Your task to perform on an android device: Go to privacy settings Image 0: 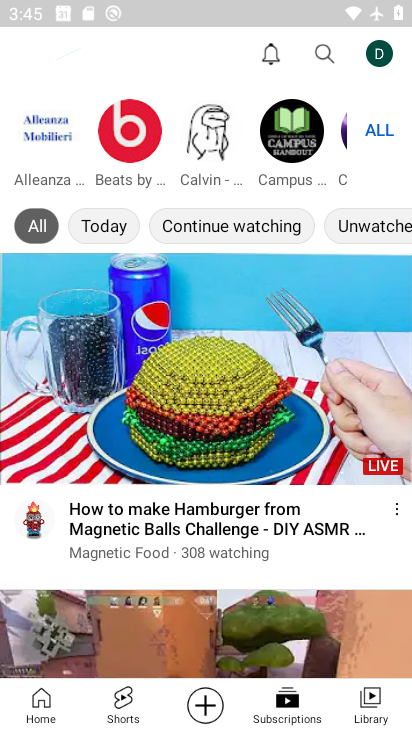
Step 0: press home button
Your task to perform on an android device: Go to privacy settings Image 1: 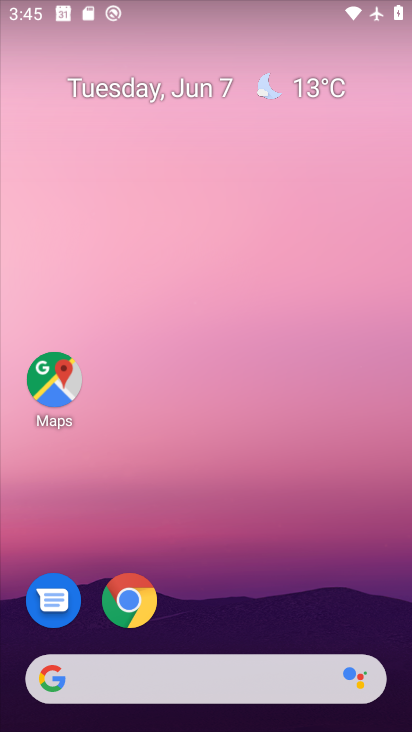
Step 1: drag from (291, 572) to (231, 196)
Your task to perform on an android device: Go to privacy settings Image 2: 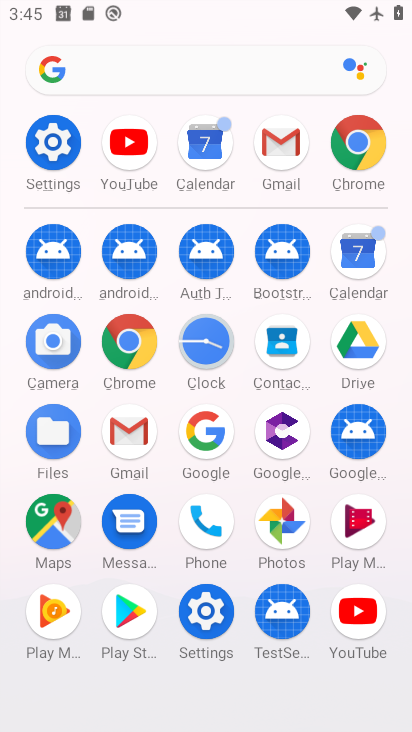
Step 2: click (52, 143)
Your task to perform on an android device: Go to privacy settings Image 3: 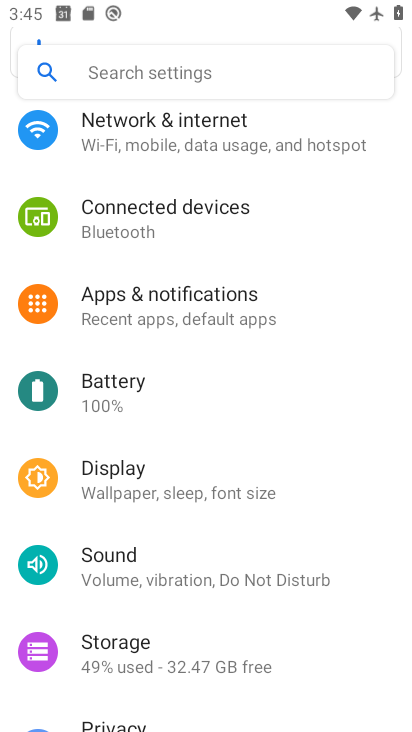
Step 3: drag from (273, 587) to (296, 176)
Your task to perform on an android device: Go to privacy settings Image 4: 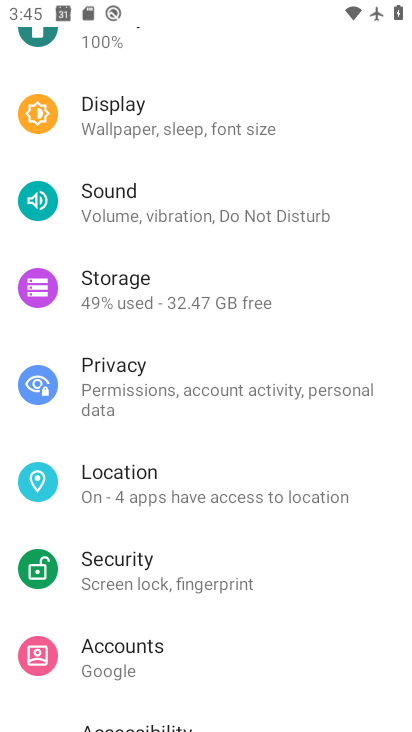
Step 4: drag from (143, 541) to (282, 673)
Your task to perform on an android device: Go to privacy settings Image 5: 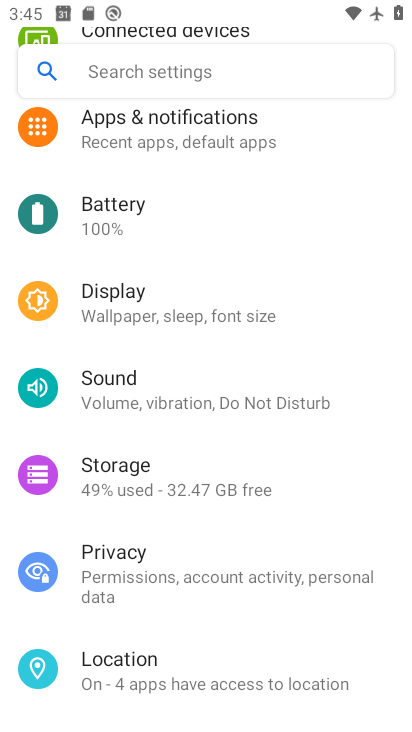
Step 5: drag from (252, 214) to (293, 139)
Your task to perform on an android device: Go to privacy settings Image 6: 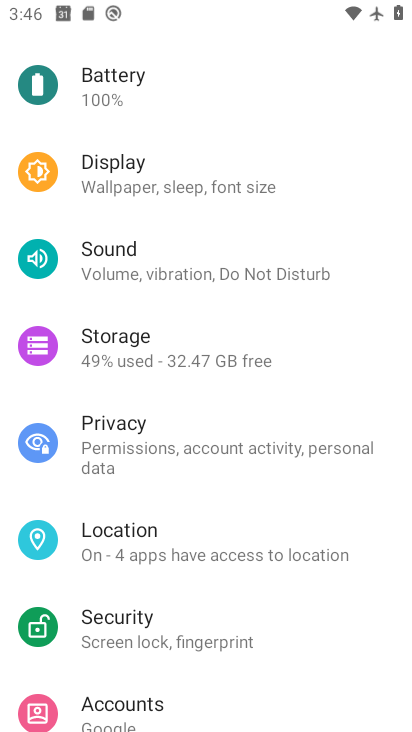
Step 6: click (189, 444)
Your task to perform on an android device: Go to privacy settings Image 7: 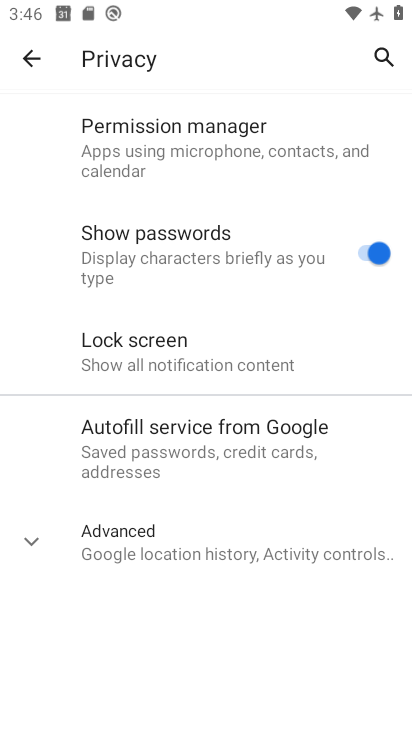
Step 7: task complete